Your task to perform on an android device: Open Youtube and go to "Your channel" Image 0: 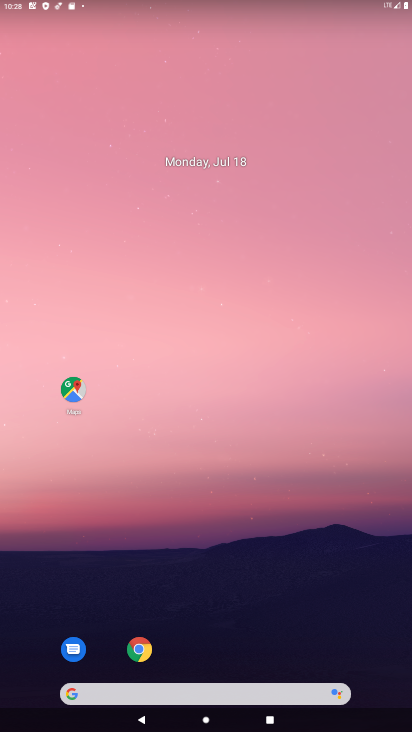
Step 0: drag from (229, 714) to (230, 106)
Your task to perform on an android device: Open Youtube and go to "Your channel" Image 1: 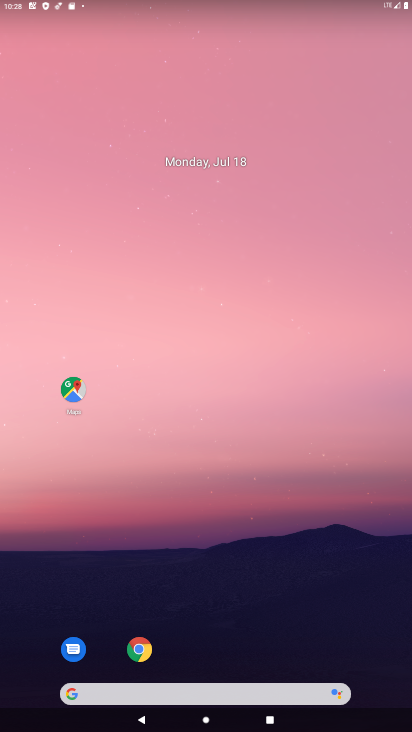
Step 1: drag from (228, 721) to (299, 83)
Your task to perform on an android device: Open Youtube and go to "Your channel" Image 2: 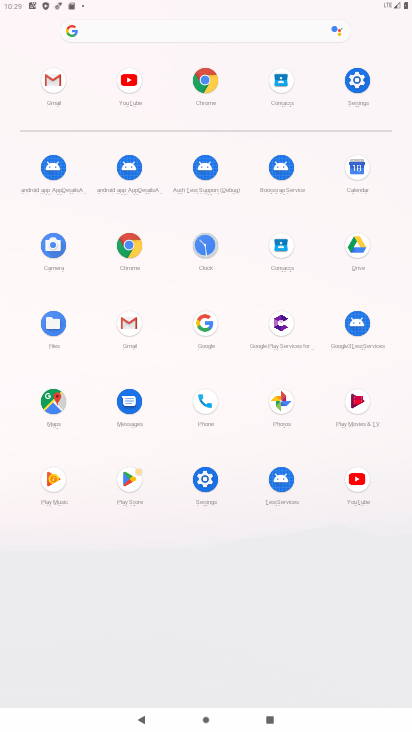
Step 2: click (357, 484)
Your task to perform on an android device: Open Youtube and go to "Your channel" Image 3: 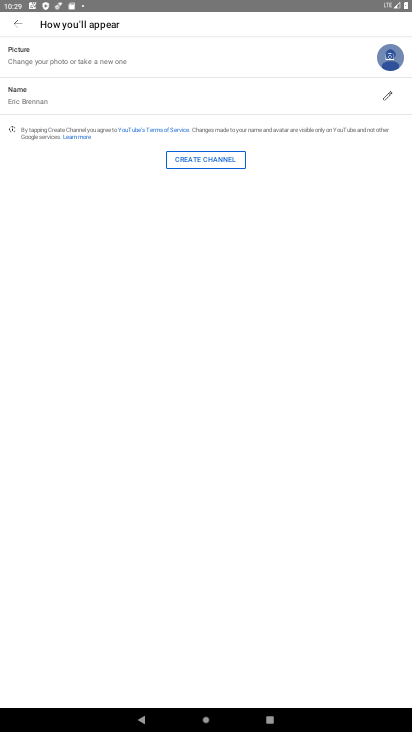
Step 3: click (15, 20)
Your task to perform on an android device: Open Youtube and go to "Your channel" Image 4: 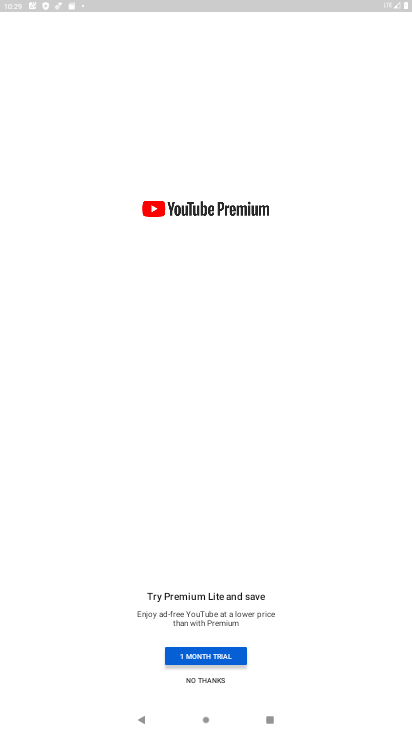
Step 4: click (200, 678)
Your task to perform on an android device: Open Youtube and go to "Your channel" Image 5: 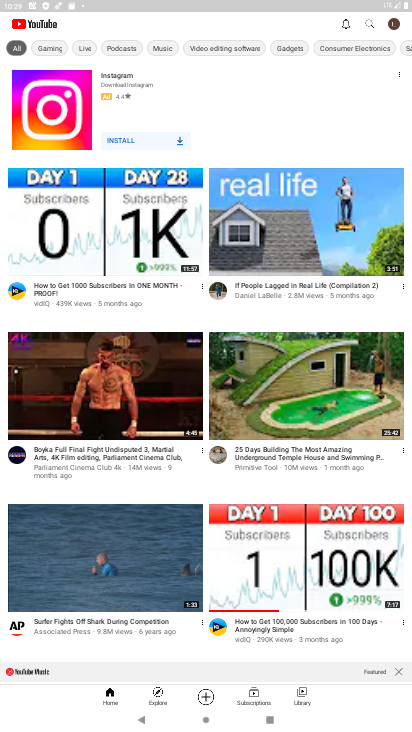
Step 5: click (396, 22)
Your task to perform on an android device: Open Youtube and go to "Your channel" Image 6: 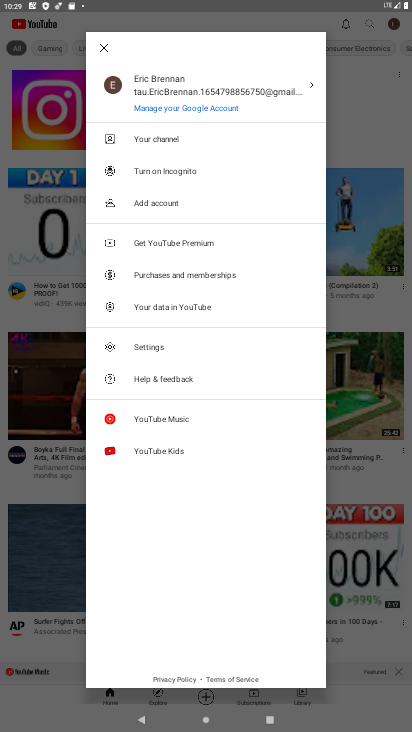
Step 6: click (202, 135)
Your task to perform on an android device: Open Youtube and go to "Your channel" Image 7: 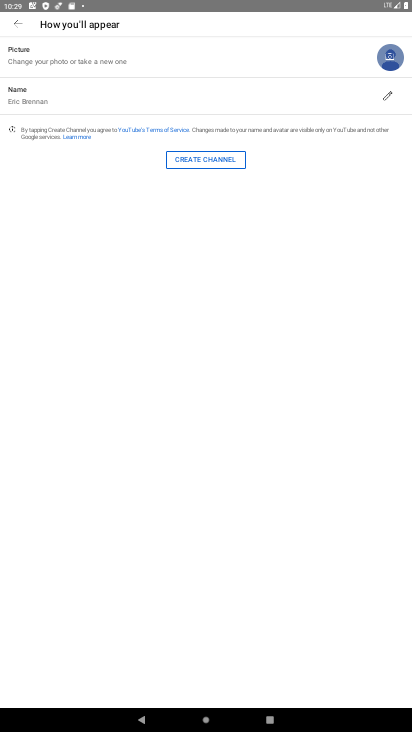
Step 7: task complete